Your task to perform on an android device: What is the news today? Image 0: 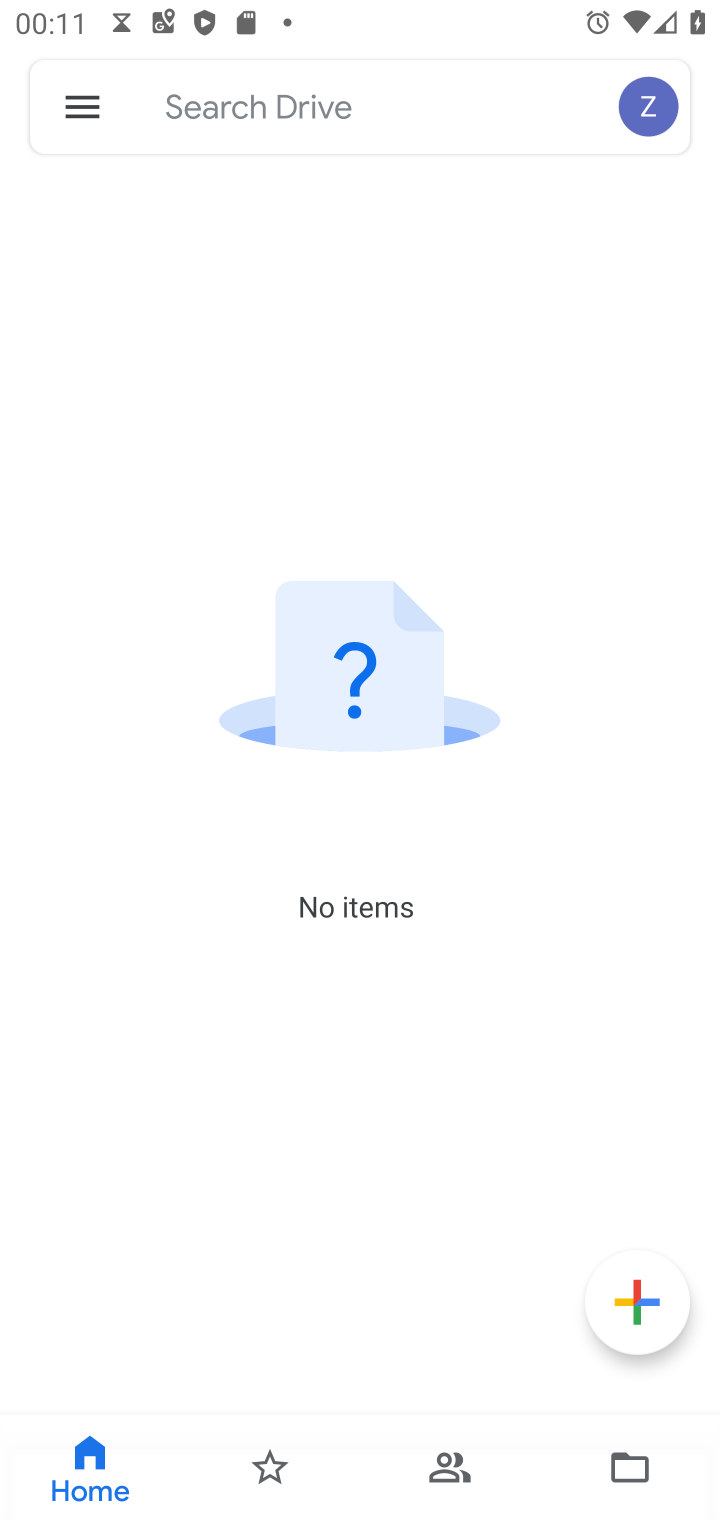
Step 0: press home button
Your task to perform on an android device: What is the news today? Image 1: 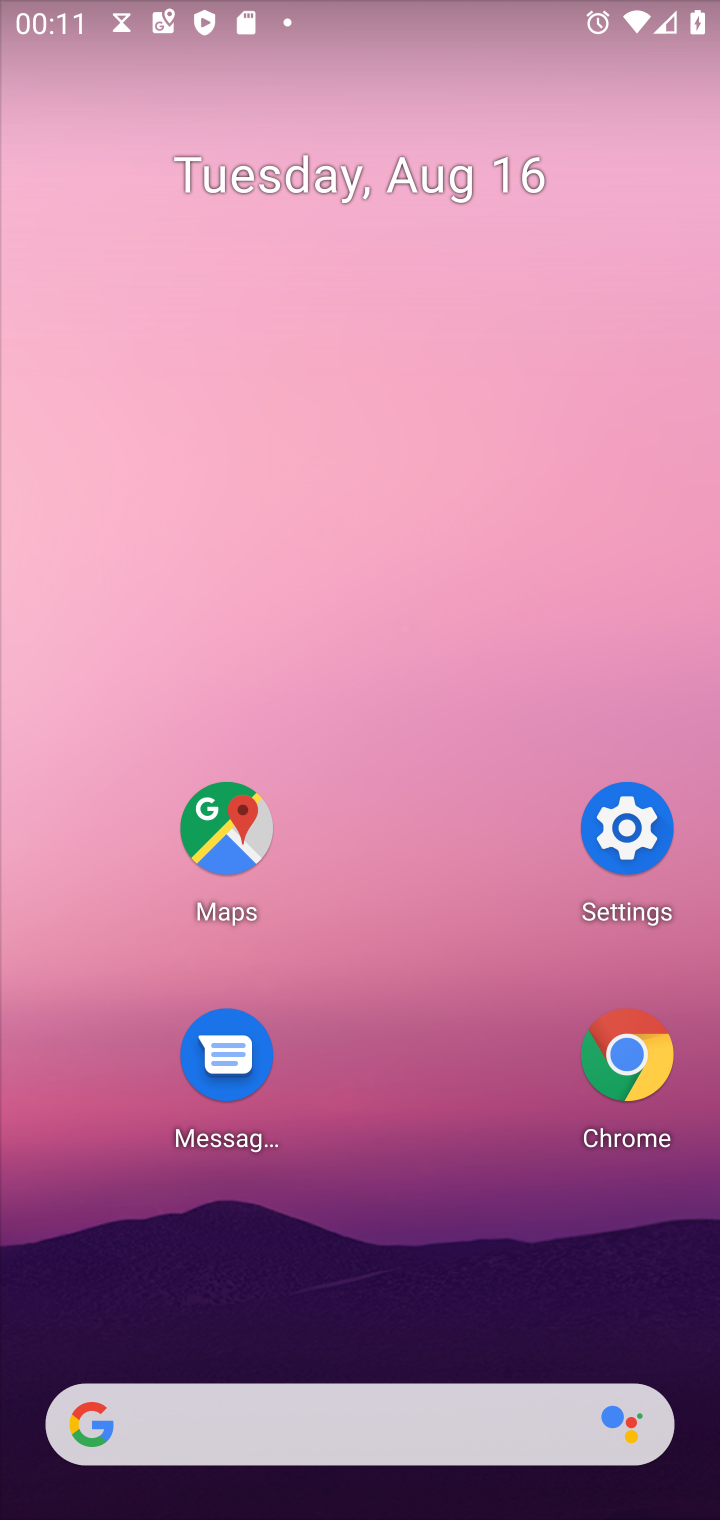
Step 1: click (285, 1410)
Your task to perform on an android device: What is the news today? Image 2: 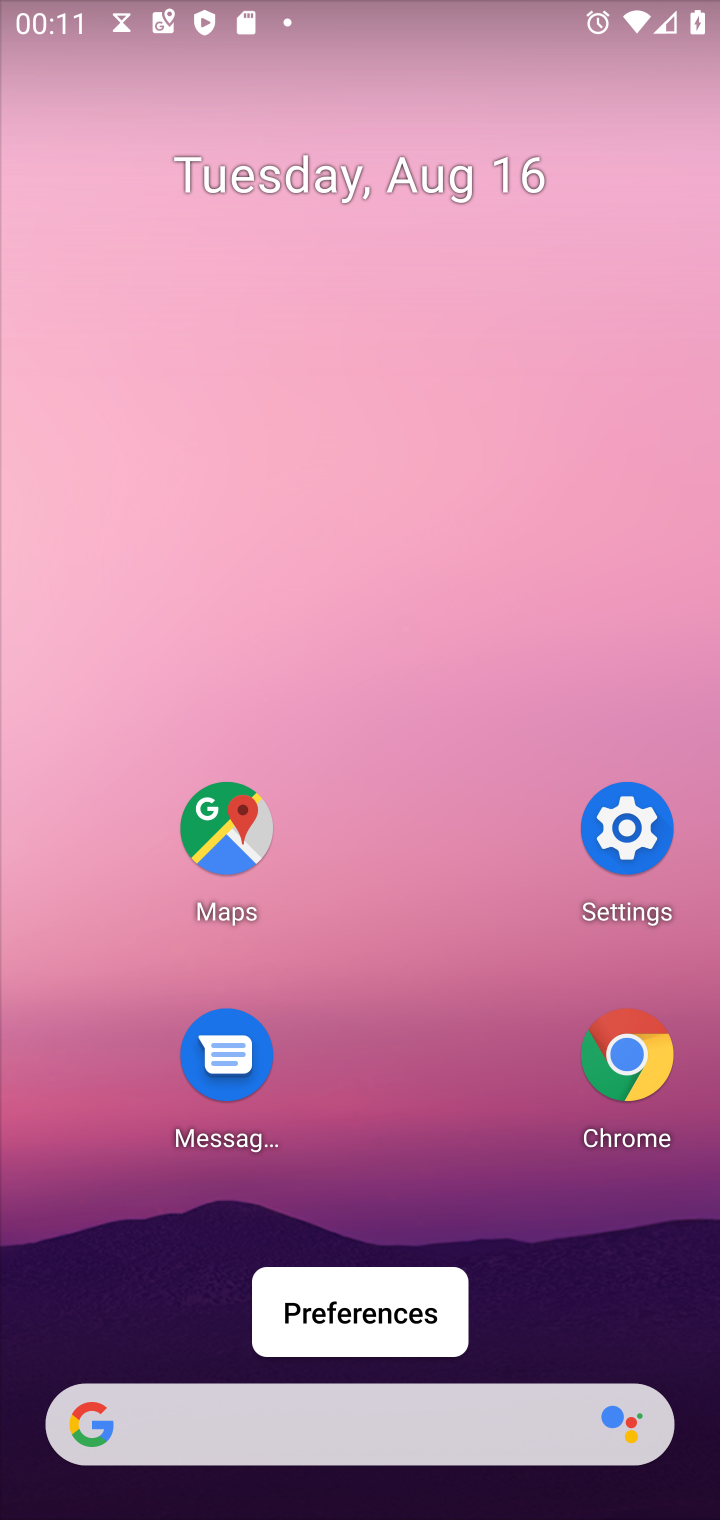
Step 2: click (285, 1412)
Your task to perform on an android device: What is the news today? Image 3: 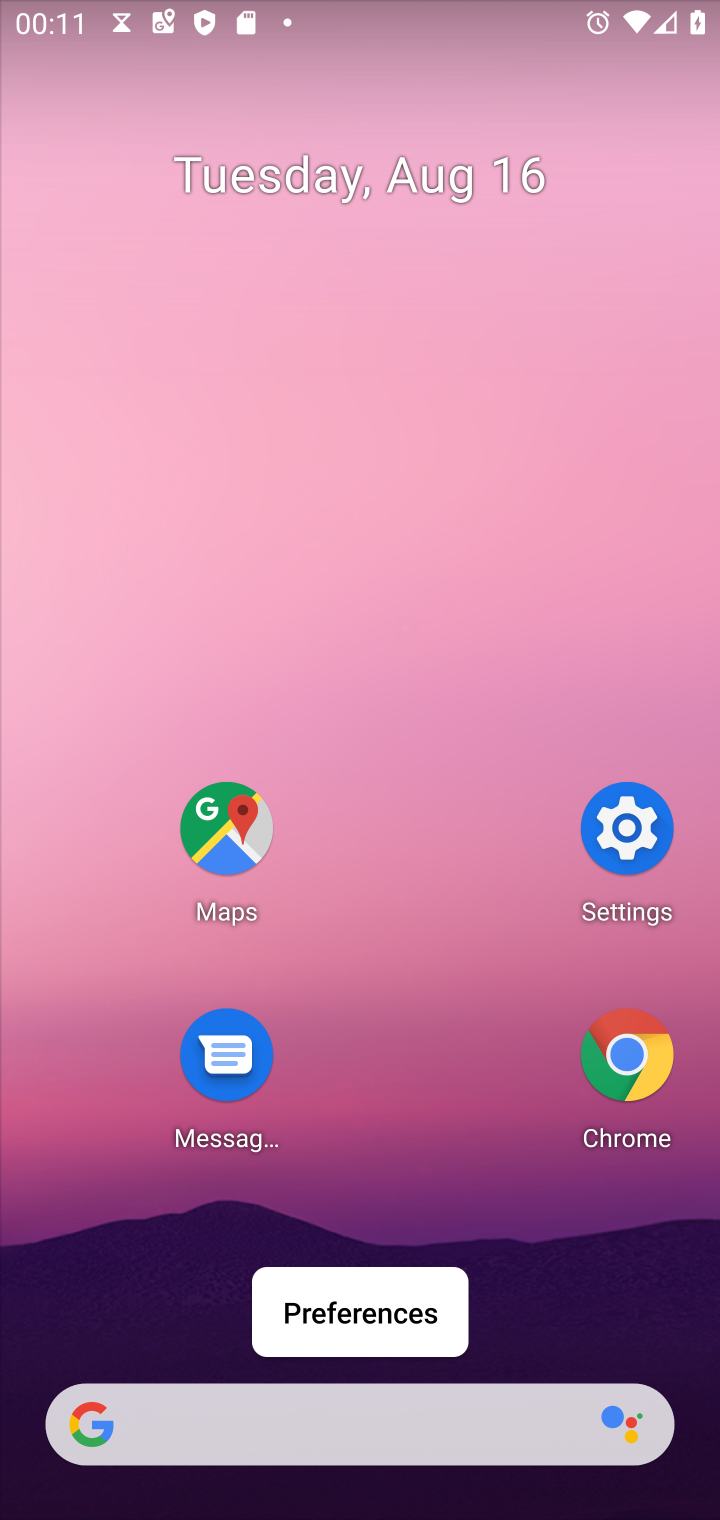
Step 3: click (278, 1410)
Your task to perform on an android device: What is the news today? Image 4: 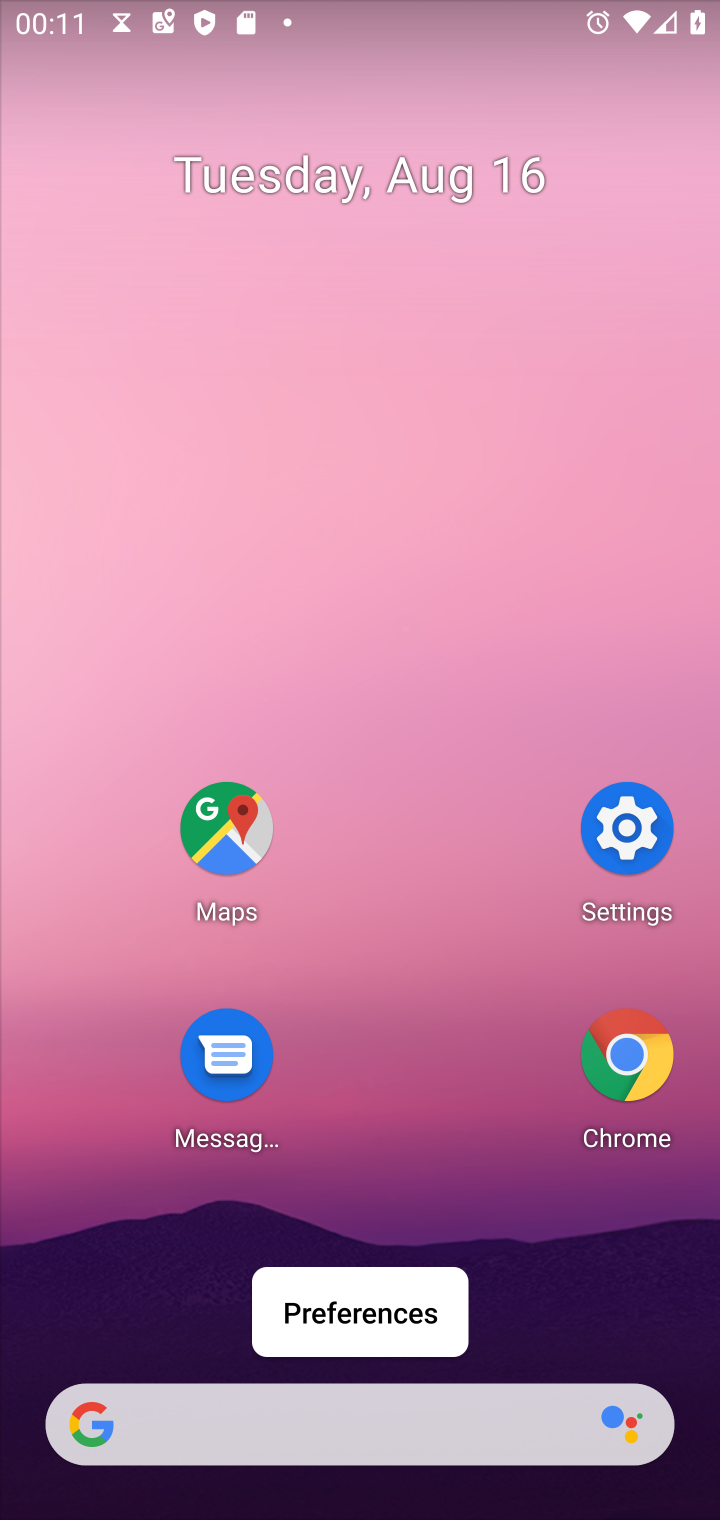
Step 4: click (353, 1405)
Your task to perform on an android device: What is the news today? Image 5: 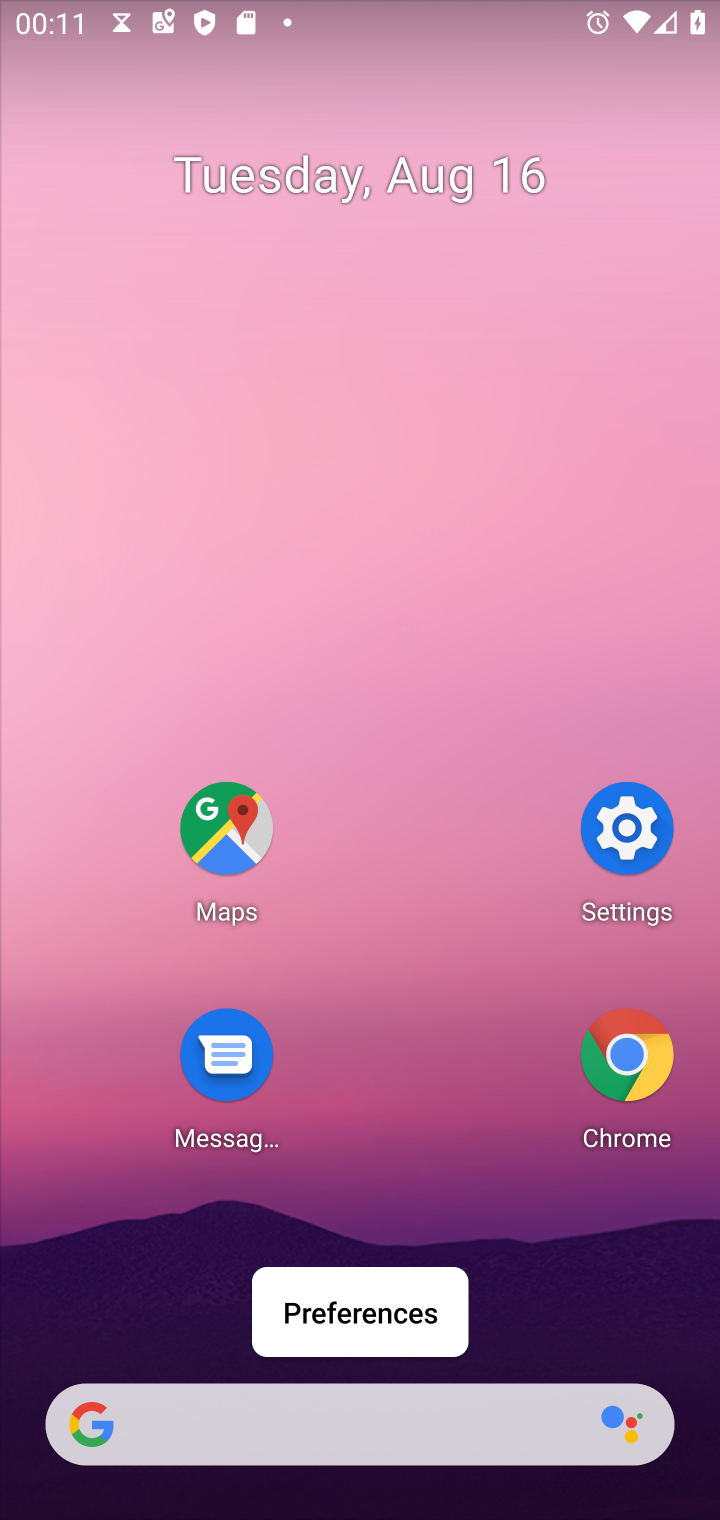
Step 5: click (211, 1415)
Your task to perform on an android device: What is the news today? Image 6: 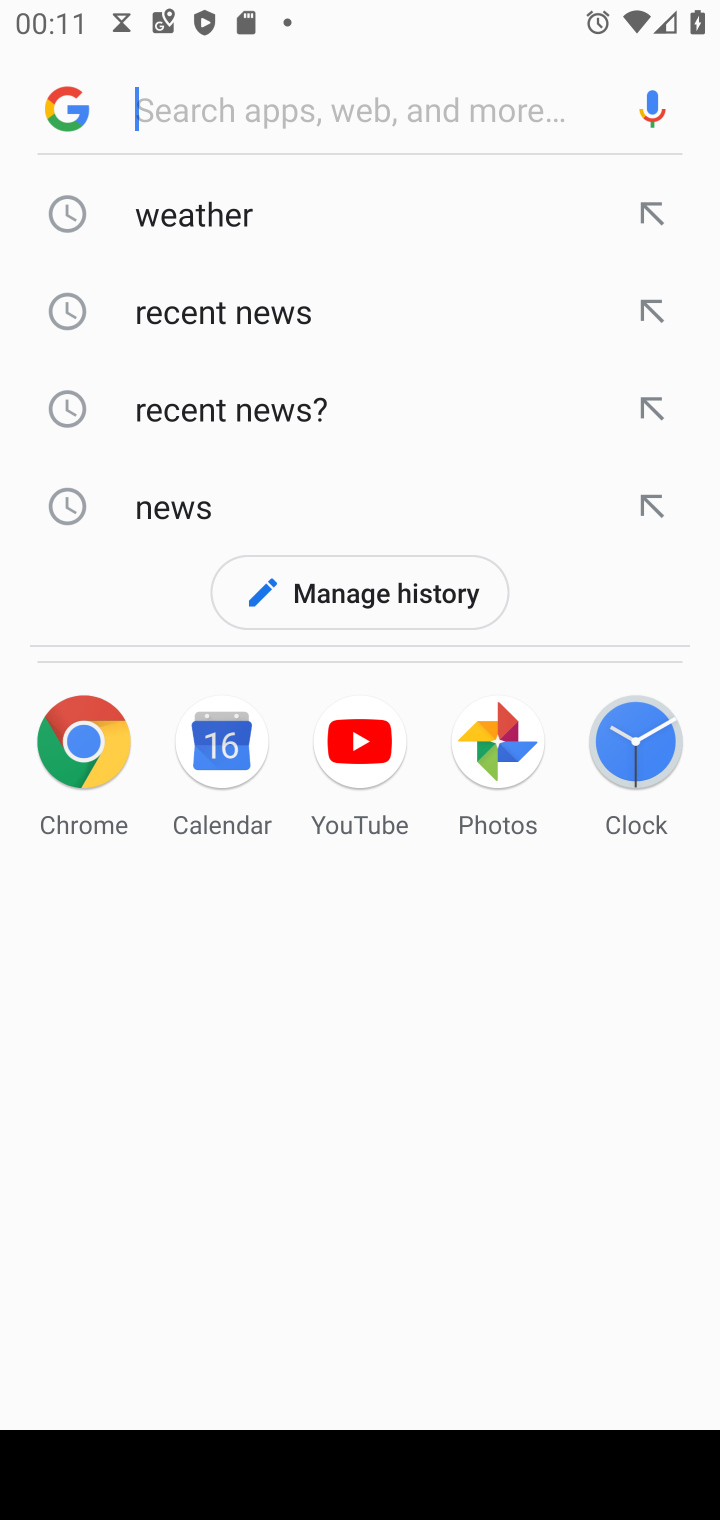
Step 6: click (172, 506)
Your task to perform on an android device: What is the news today? Image 7: 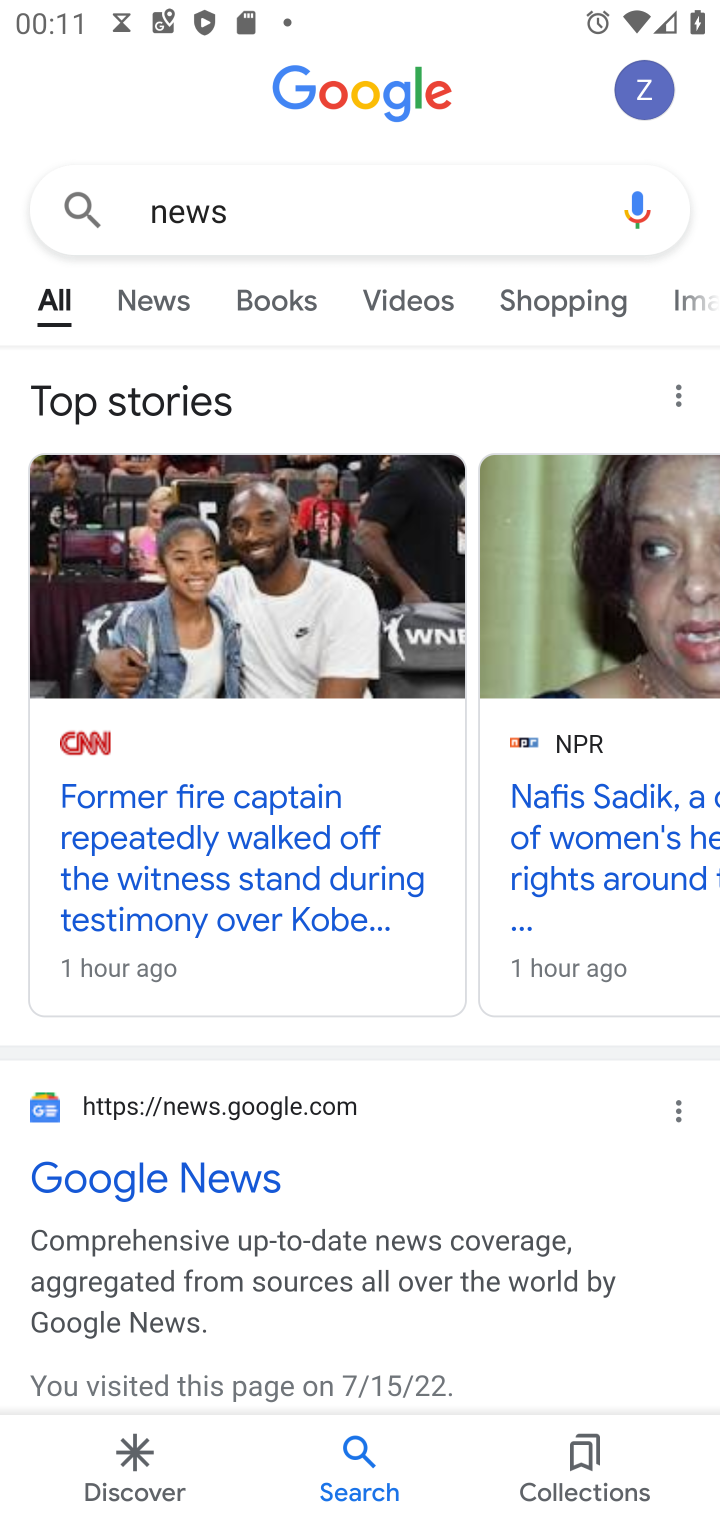
Step 7: click (167, 299)
Your task to perform on an android device: What is the news today? Image 8: 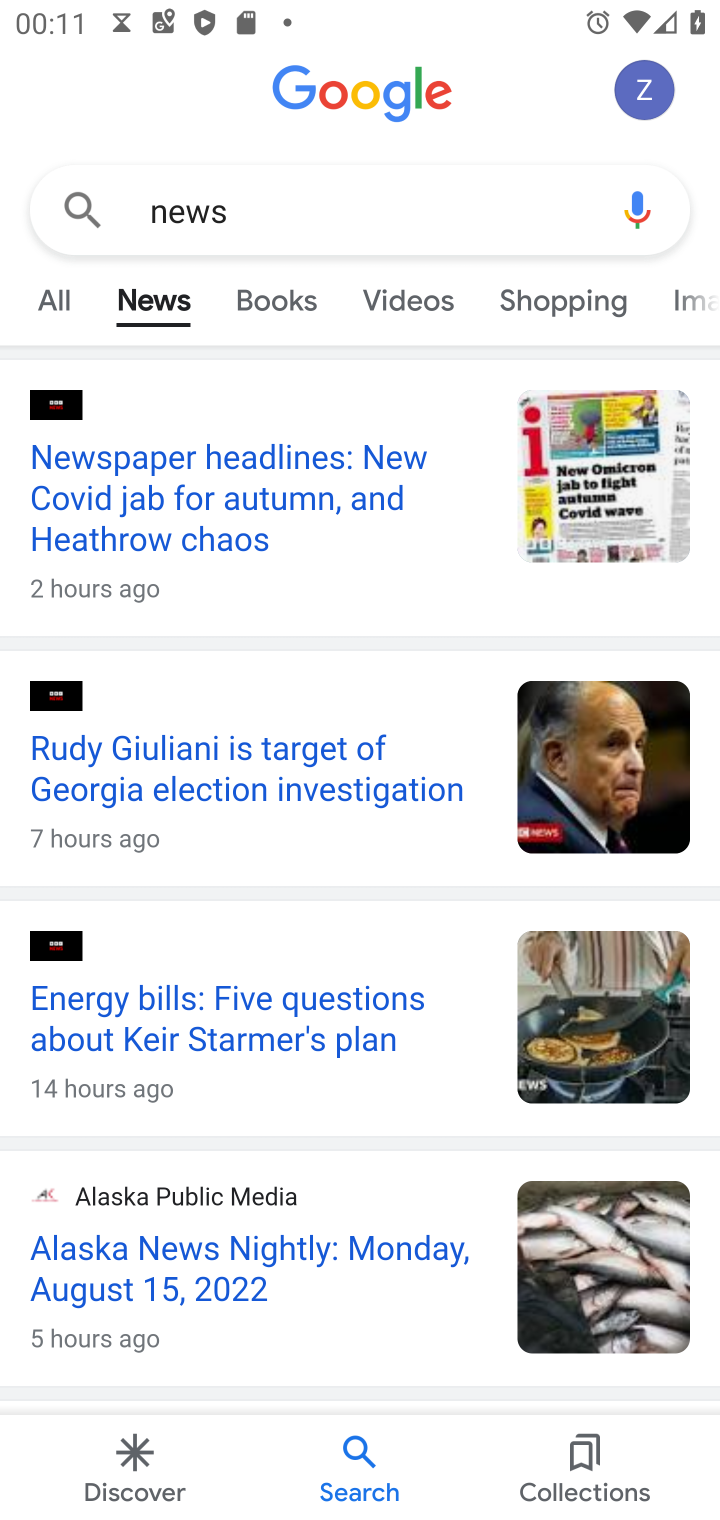
Step 8: task complete